Your task to perform on an android device: Go to settings Image 0: 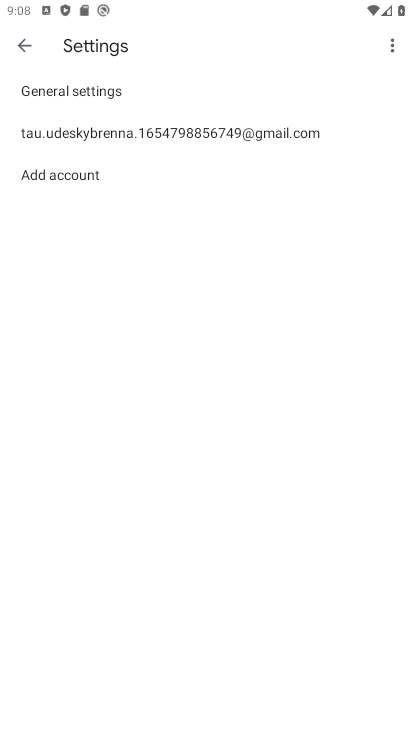
Step 0: press home button
Your task to perform on an android device: Go to settings Image 1: 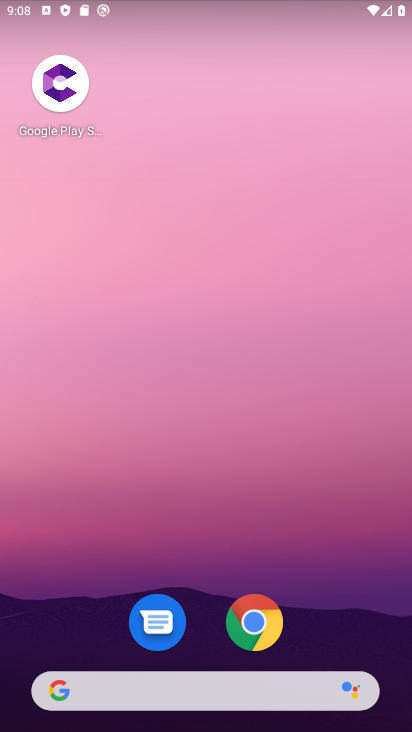
Step 1: drag from (293, 713) to (204, 169)
Your task to perform on an android device: Go to settings Image 2: 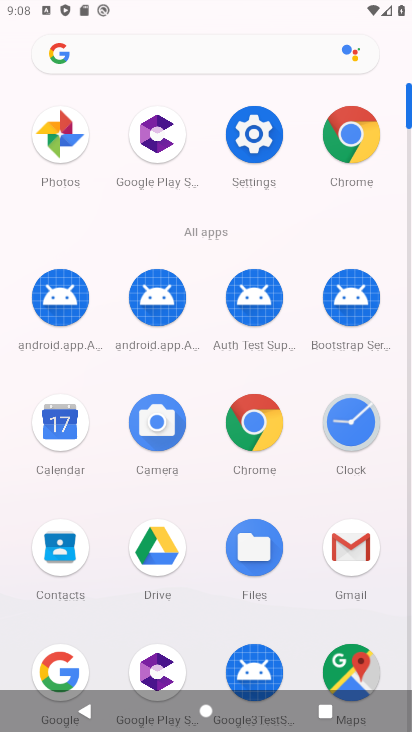
Step 2: click (274, 126)
Your task to perform on an android device: Go to settings Image 3: 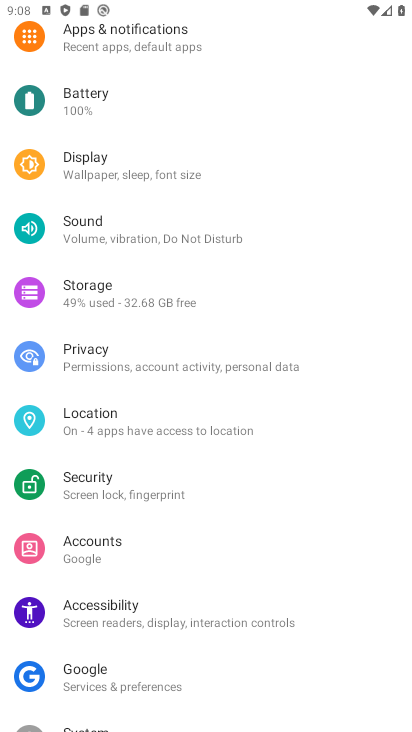
Step 3: task complete